Your task to perform on an android device: install app "Google Home" Image 0: 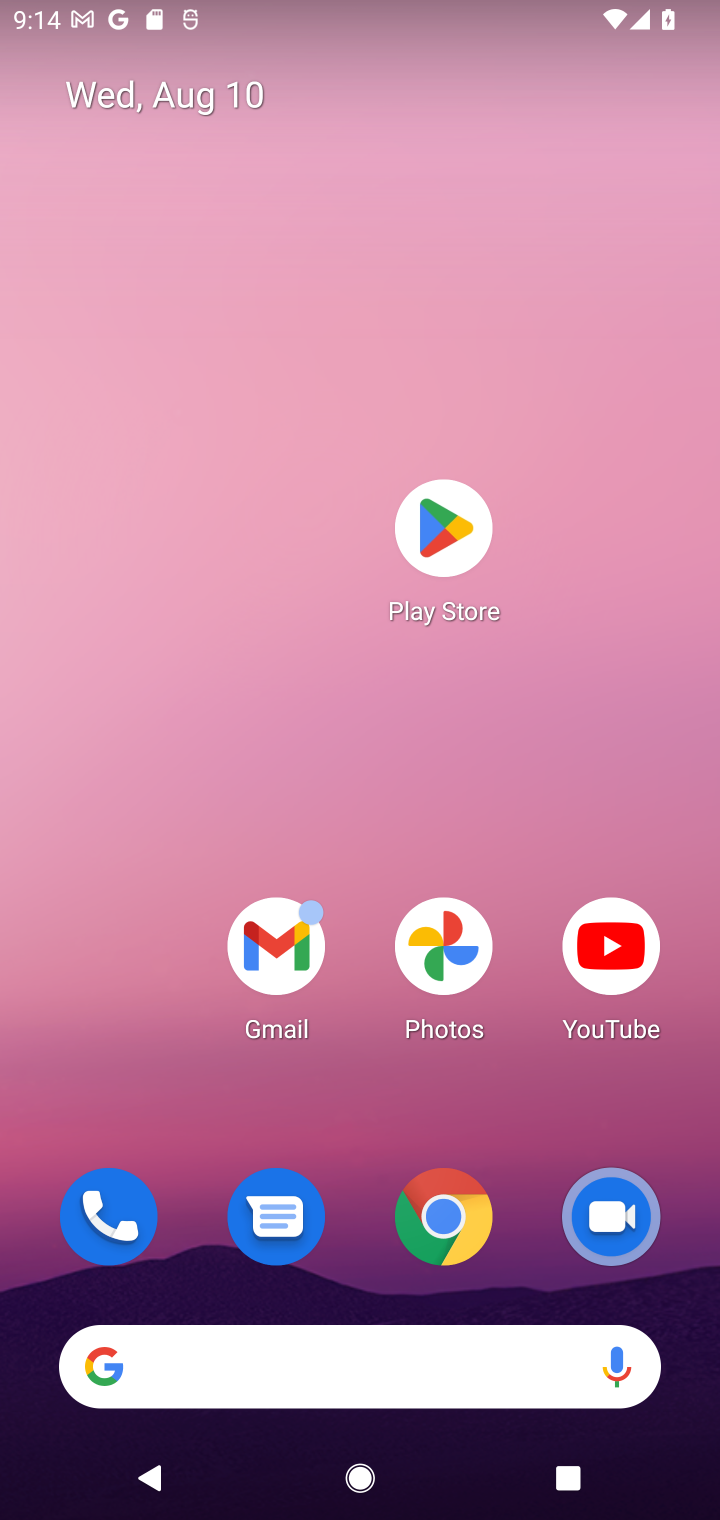
Step 0: press home button
Your task to perform on an android device: install app "Google Home" Image 1: 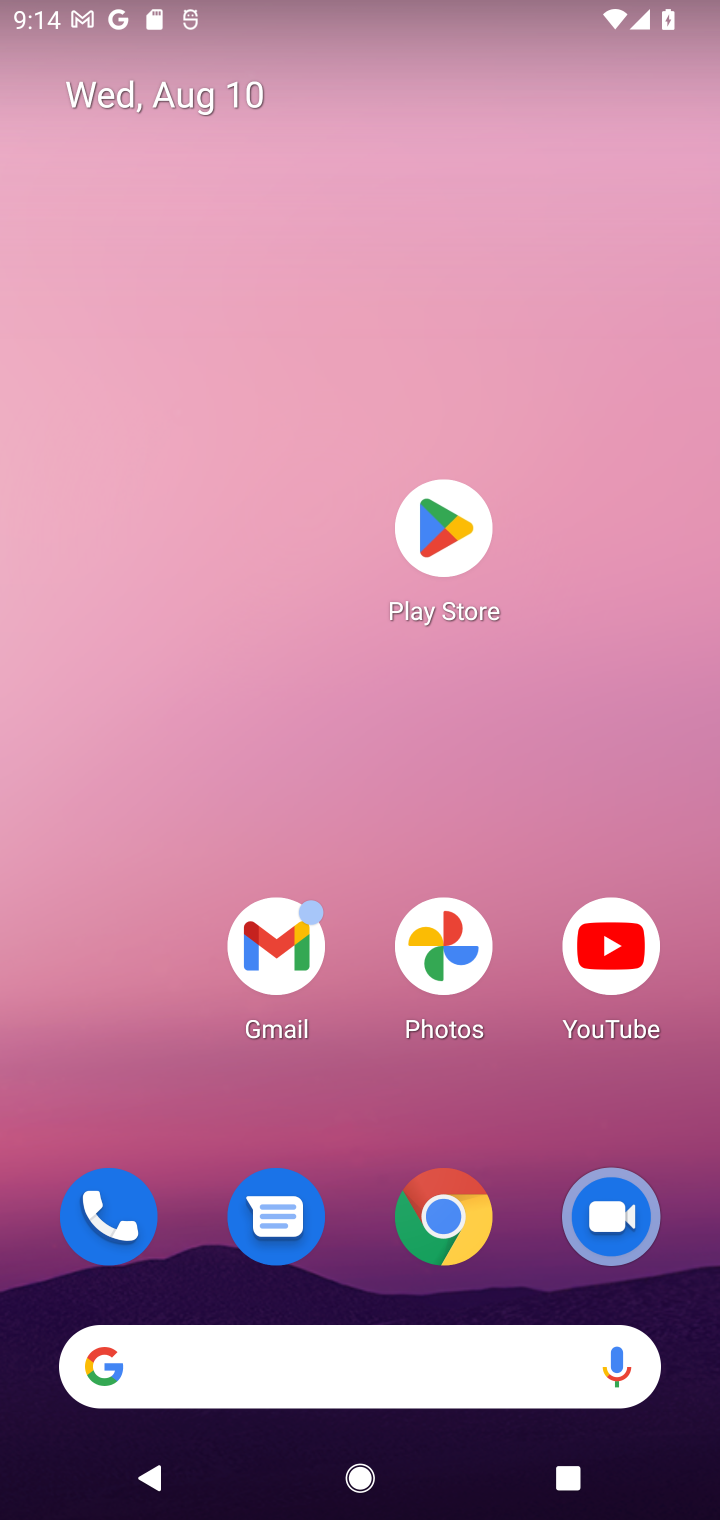
Step 1: click (449, 534)
Your task to perform on an android device: install app "Google Home" Image 2: 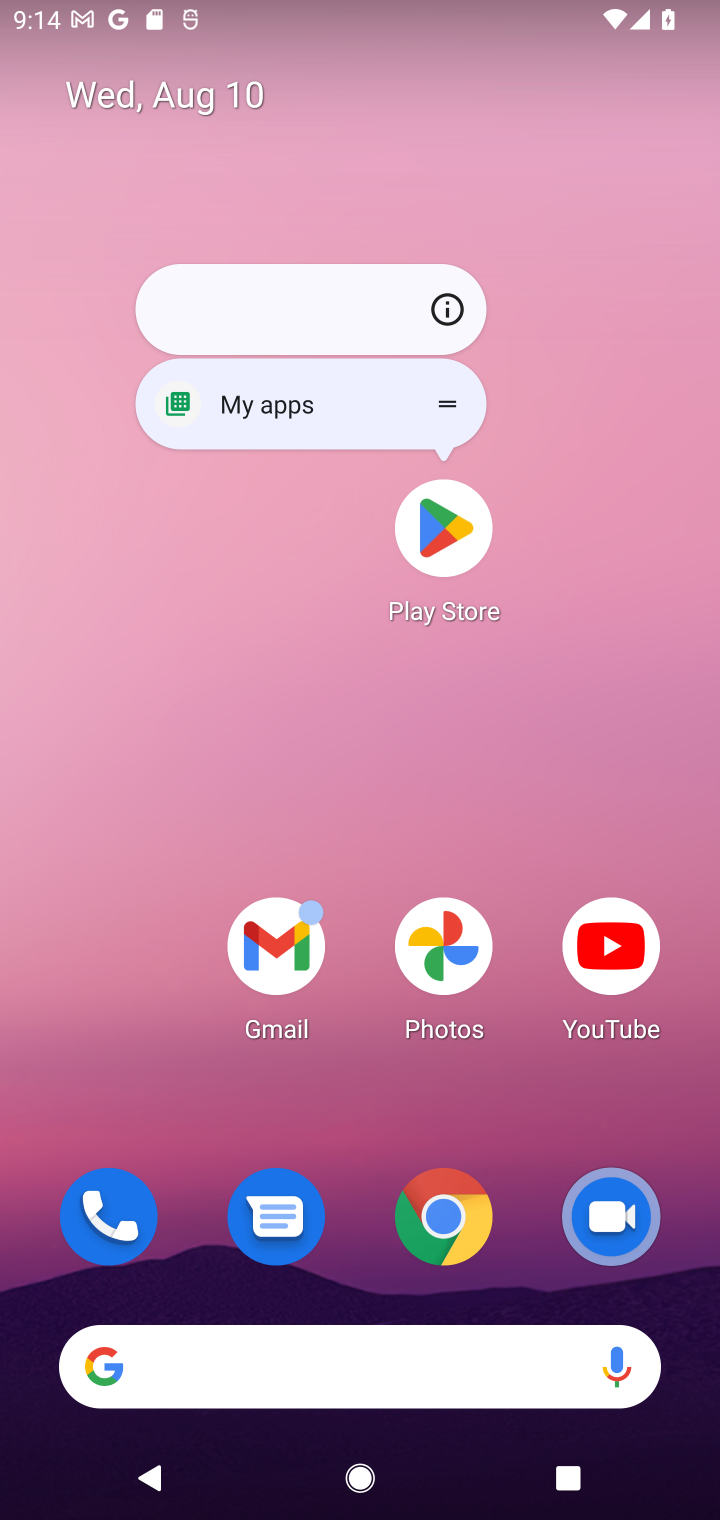
Step 2: click (449, 534)
Your task to perform on an android device: install app "Google Home" Image 3: 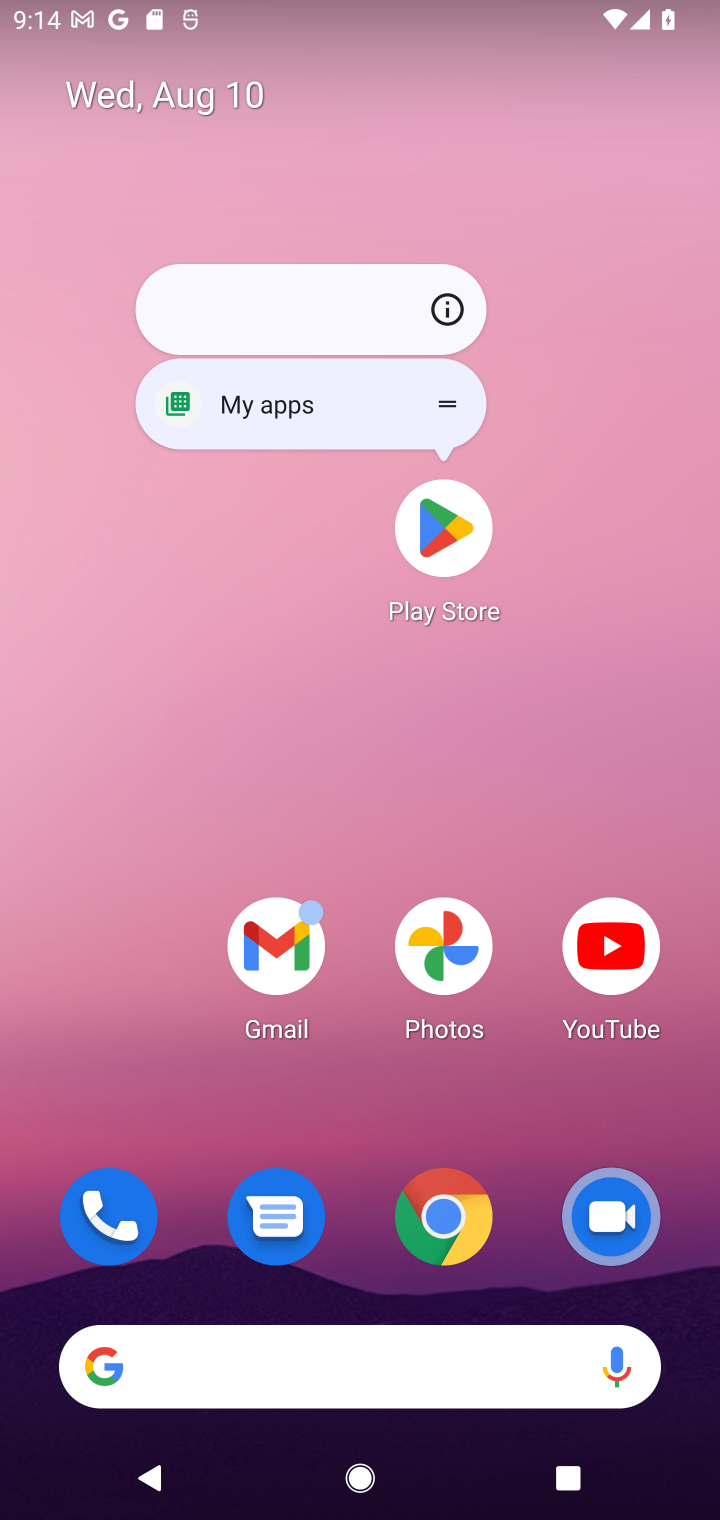
Step 3: click (449, 538)
Your task to perform on an android device: install app "Google Home" Image 4: 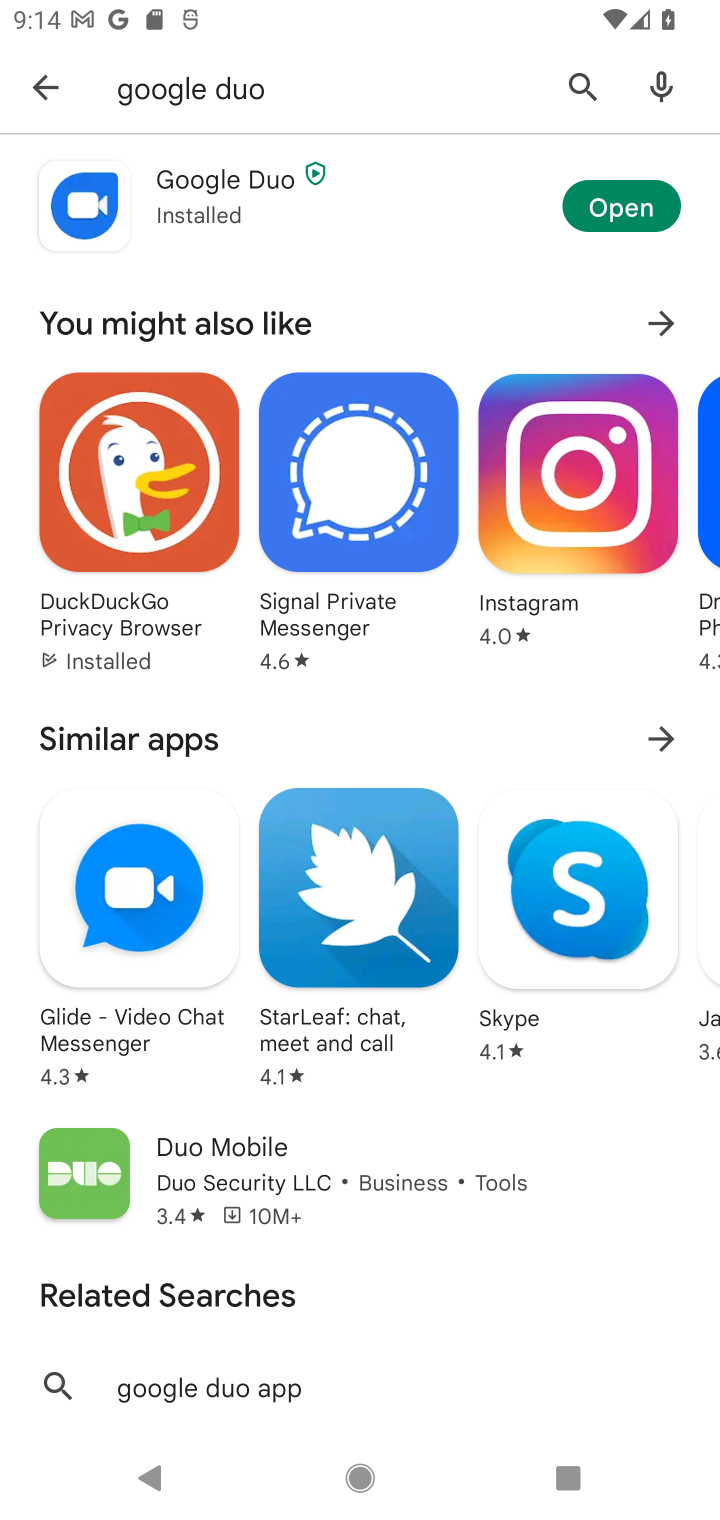
Step 4: click (576, 81)
Your task to perform on an android device: install app "Google Home" Image 5: 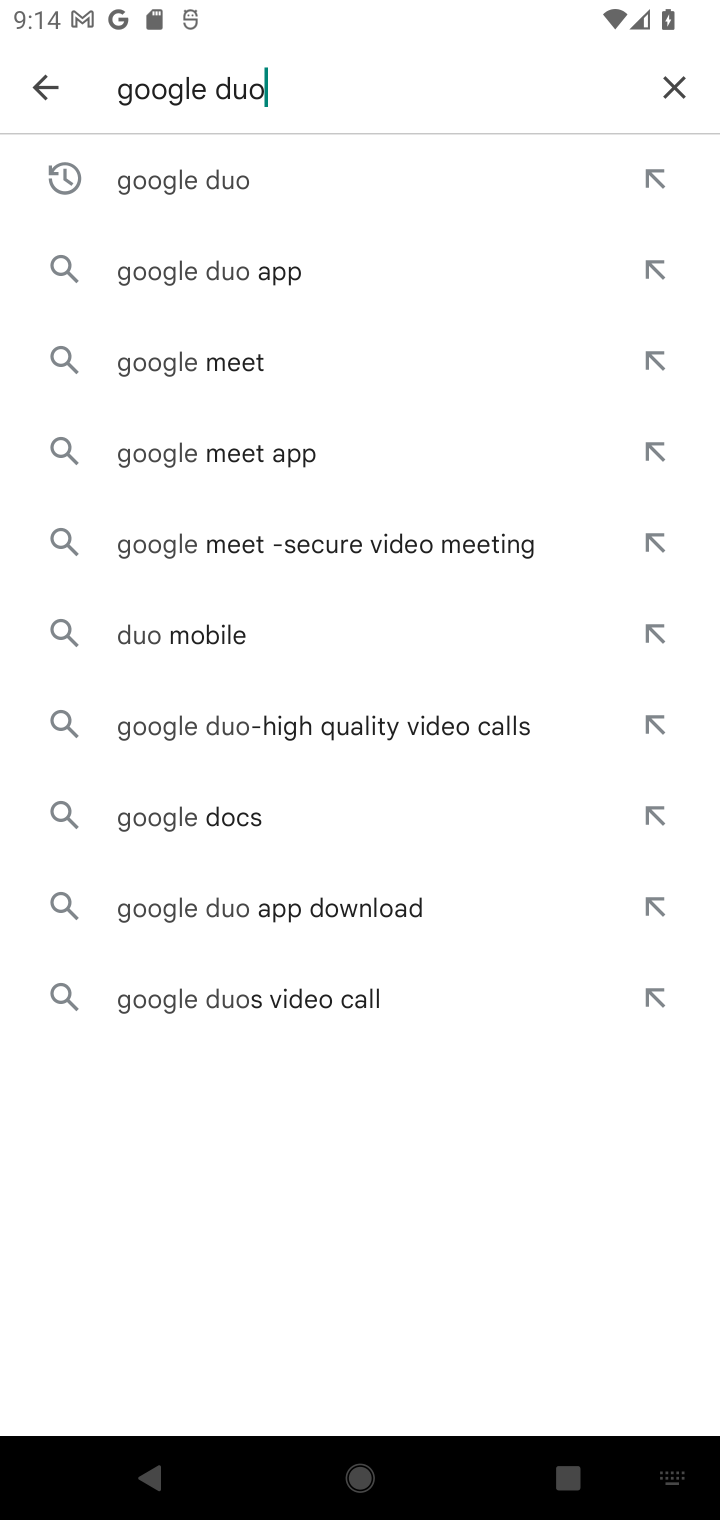
Step 5: click (671, 84)
Your task to perform on an android device: install app "Google Home" Image 6: 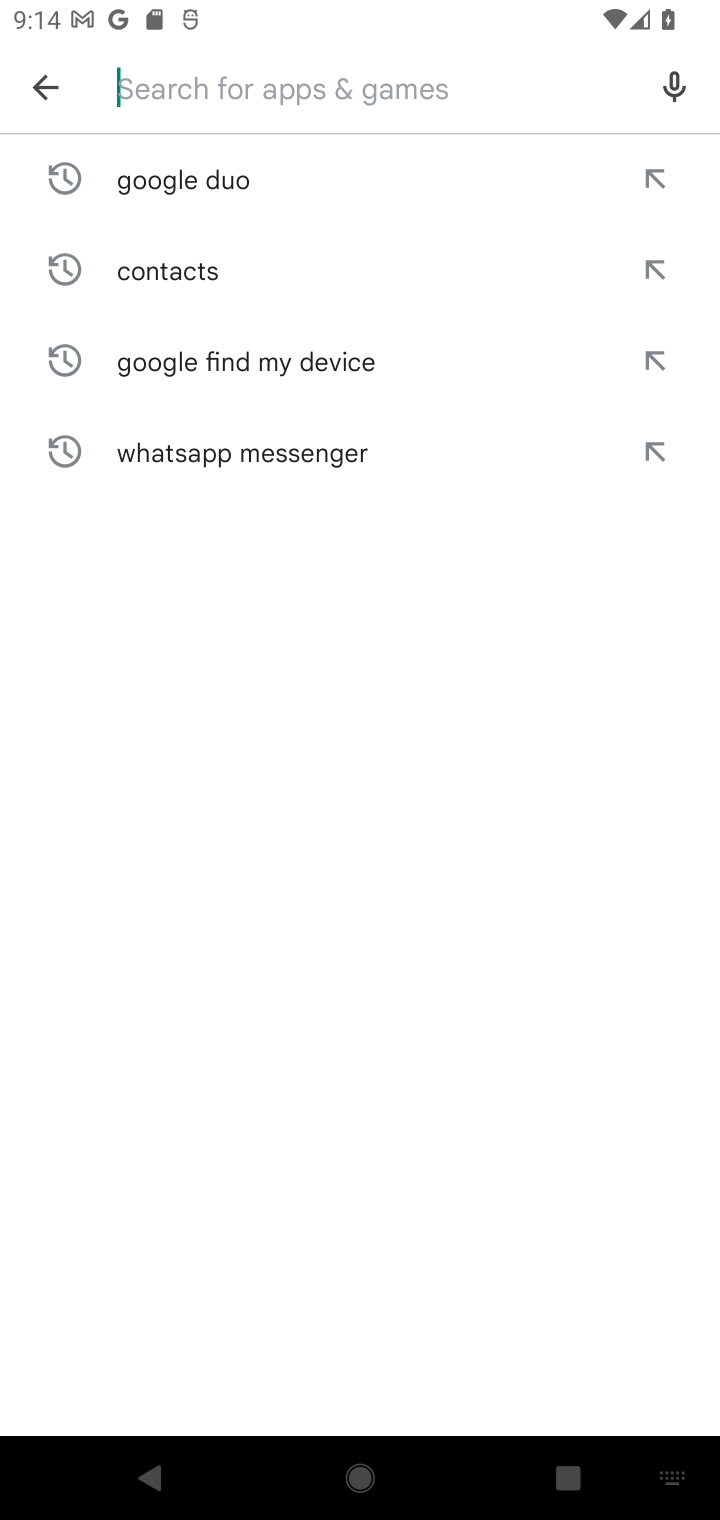
Step 6: type "Google Home"
Your task to perform on an android device: install app "Google Home" Image 7: 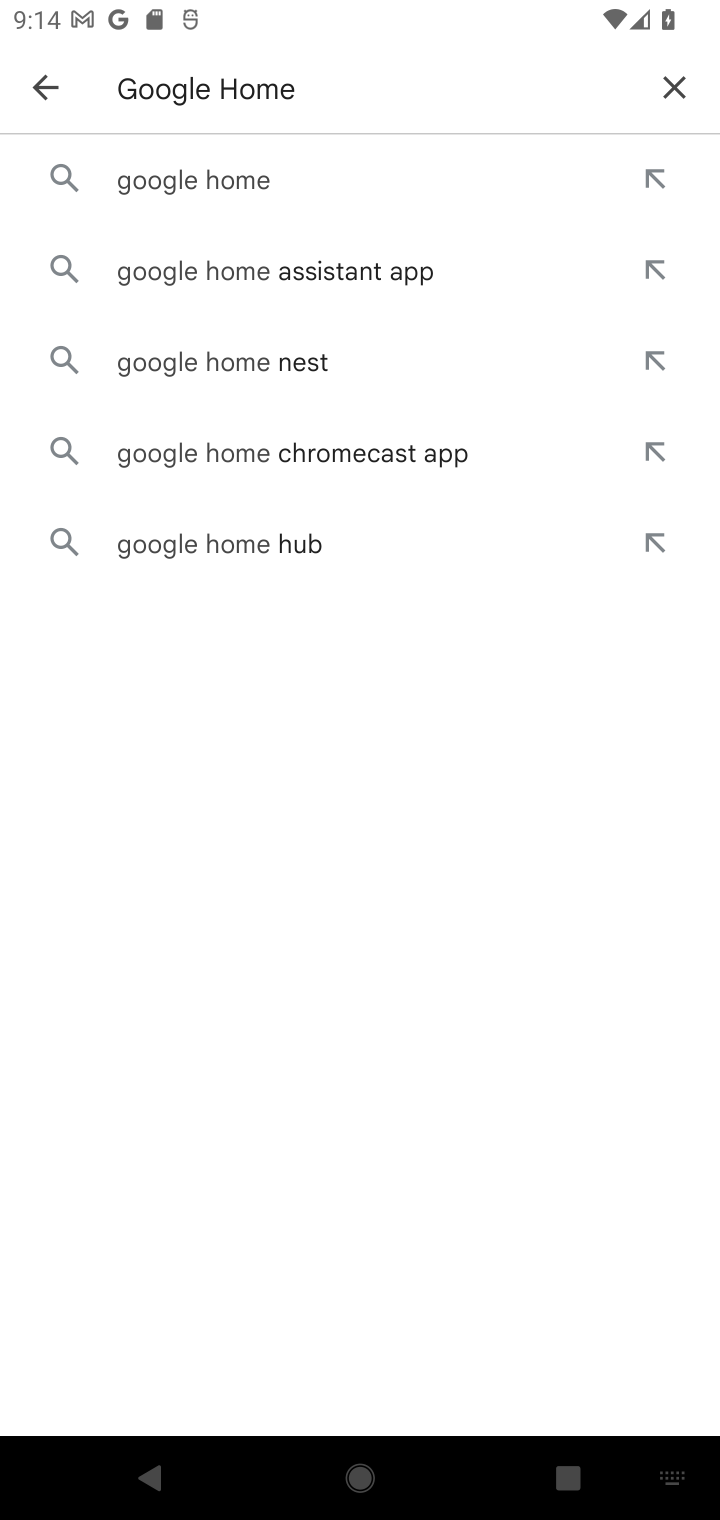
Step 7: click (234, 166)
Your task to perform on an android device: install app "Google Home" Image 8: 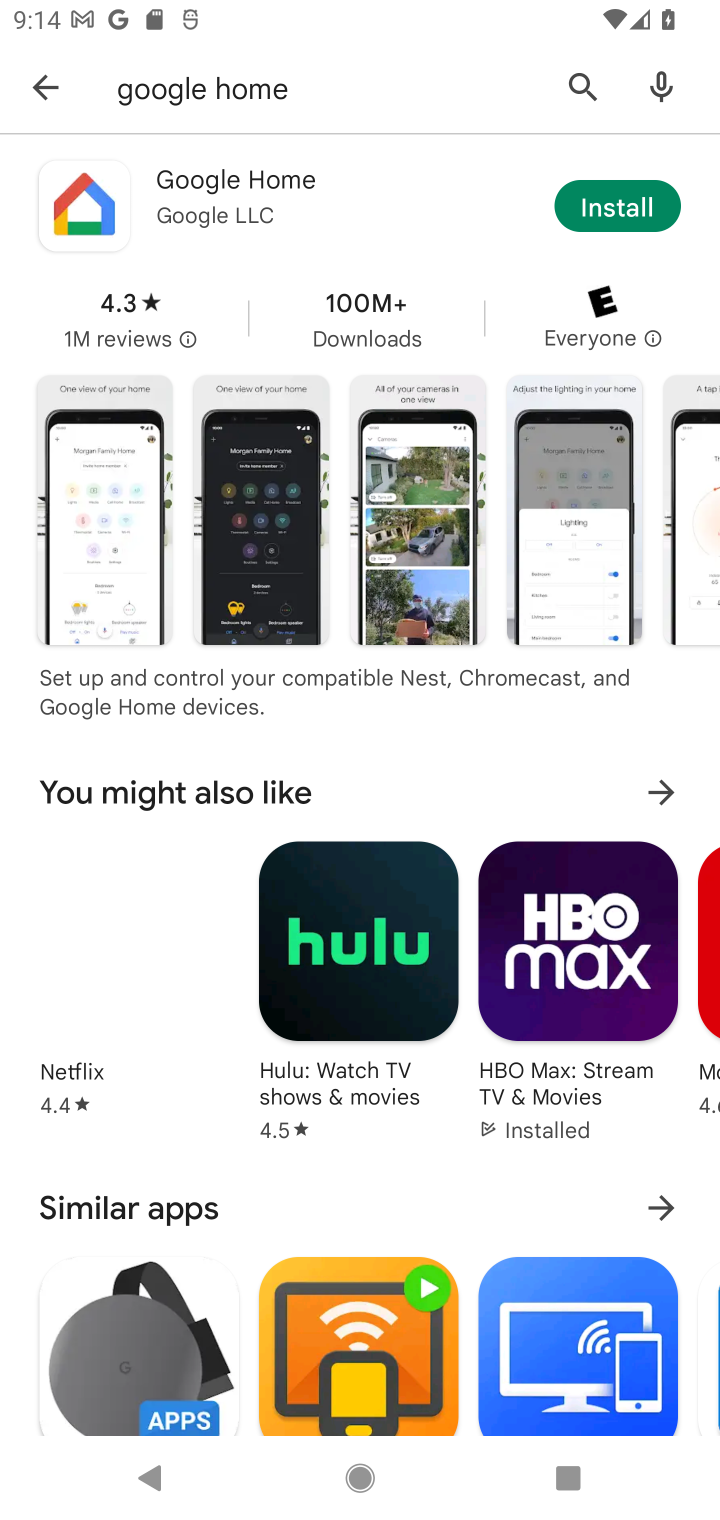
Step 8: click (628, 208)
Your task to perform on an android device: install app "Google Home" Image 9: 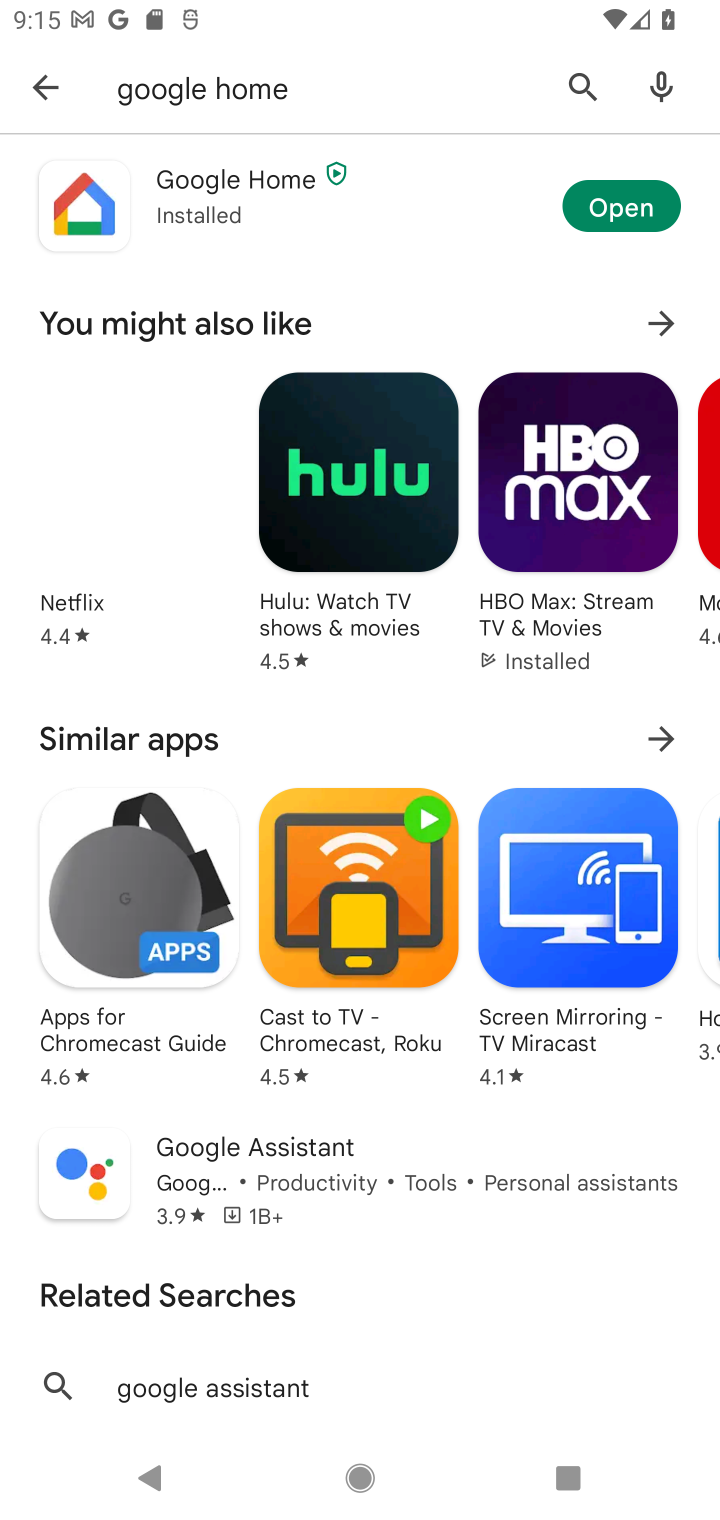
Step 9: task complete